Your task to perform on an android device: What's on the menu at Olive Garden? Image 0: 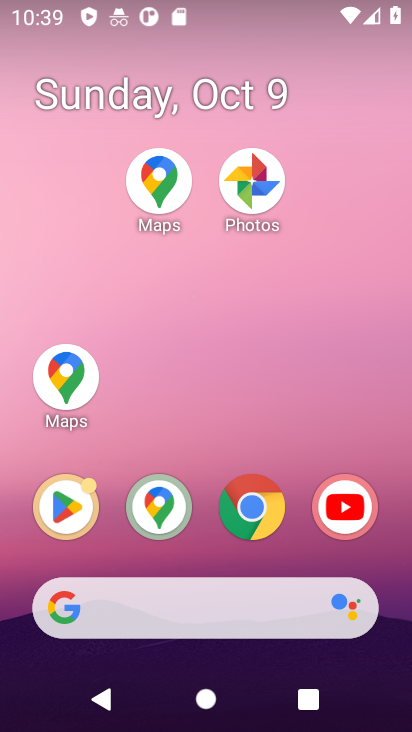
Step 0: drag from (300, 551) to (321, 89)
Your task to perform on an android device: What's on the menu at Olive Garden? Image 1: 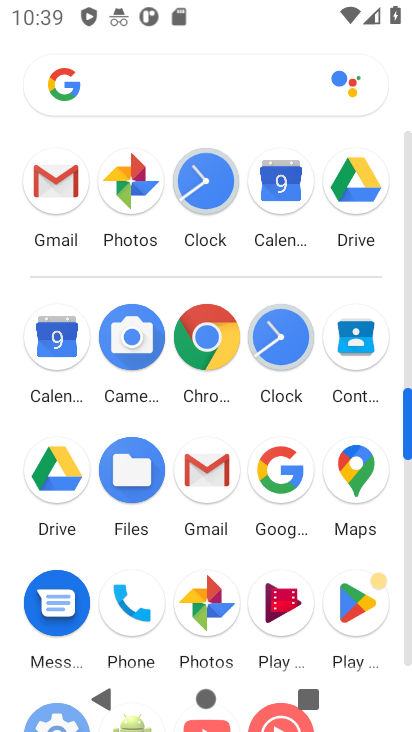
Step 1: click (218, 339)
Your task to perform on an android device: What's on the menu at Olive Garden? Image 2: 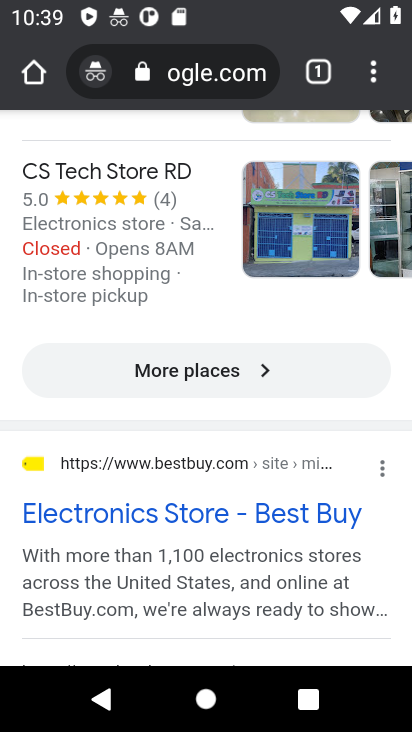
Step 2: click (201, 81)
Your task to perform on an android device: What's on the menu at Olive Garden? Image 3: 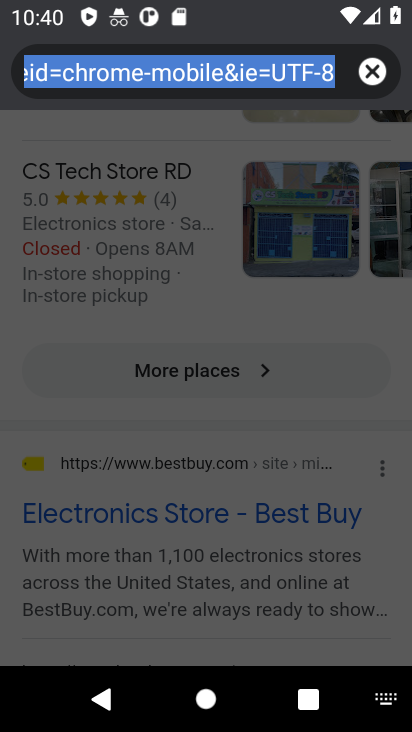
Step 3: type "What's on the menu at O live Garden?"
Your task to perform on an android device: What's on the menu at Olive Garden? Image 4: 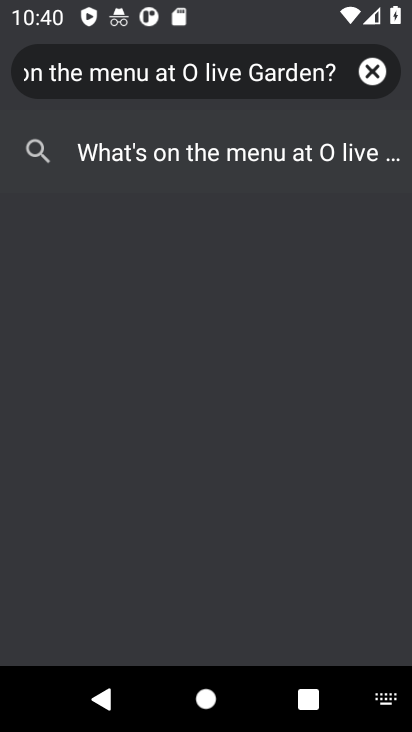
Step 4: press enter
Your task to perform on an android device: What's on the menu at Olive Garden? Image 5: 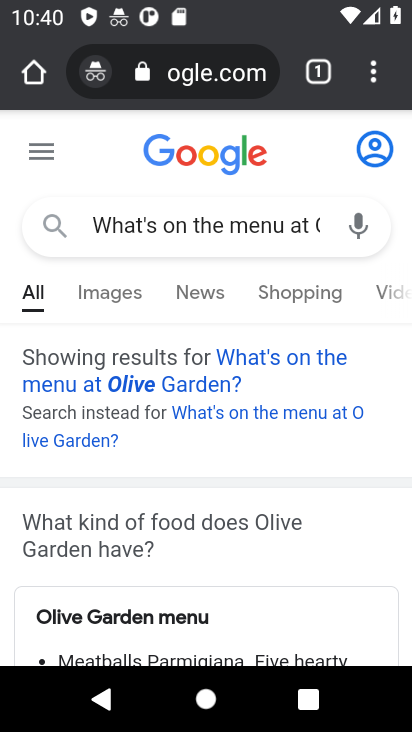
Step 5: drag from (253, 589) to (255, 496)
Your task to perform on an android device: What's on the menu at Olive Garden? Image 6: 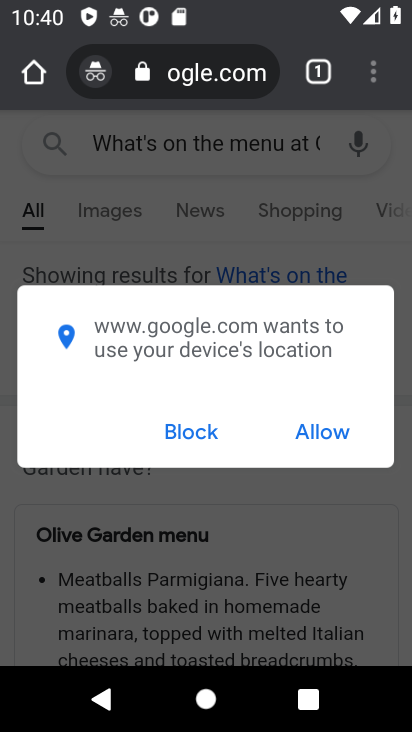
Step 6: click (195, 426)
Your task to perform on an android device: What's on the menu at Olive Garden? Image 7: 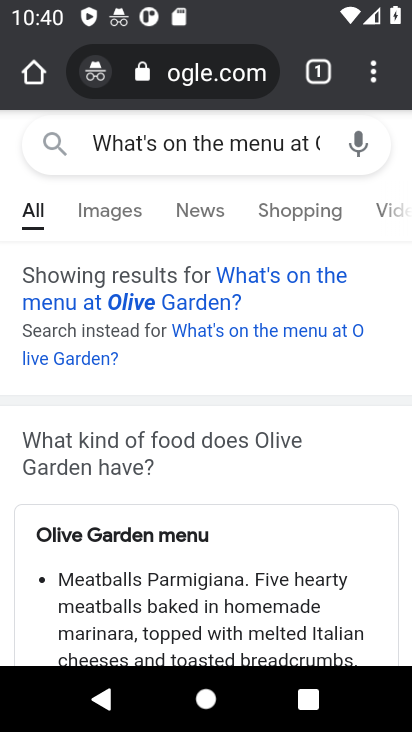
Step 7: click (262, 277)
Your task to perform on an android device: What's on the menu at Olive Garden? Image 8: 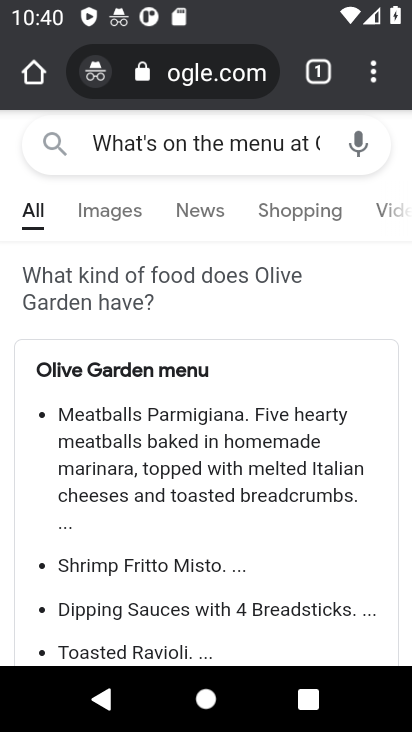
Step 8: drag from (278, 558) to (255, 258)
Your task to perform on an android device: What's on the menu at Olive Garden? Image 9: 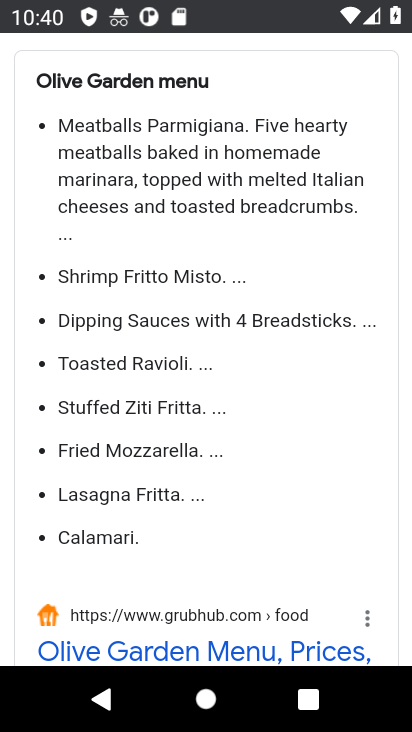
Step 9: drag from (201, 510) to (222, 292)
Your task to perform on an android device: What's on the menu at Olive Garden? Image 10: 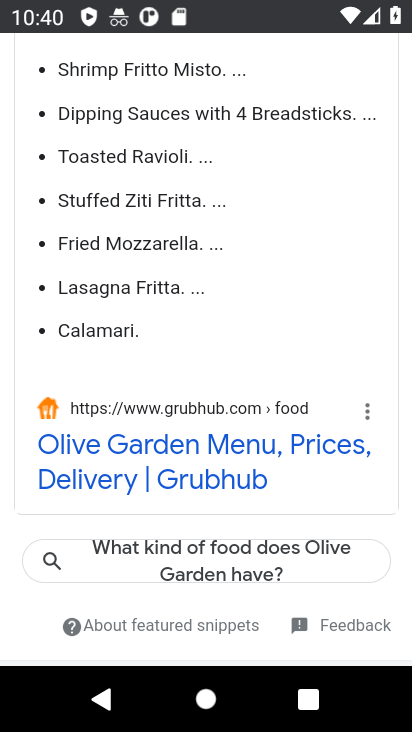
Step 10: click (158, 452)
Your task to perform on an android device: What's on the menu at Olive Garden? Image 11: 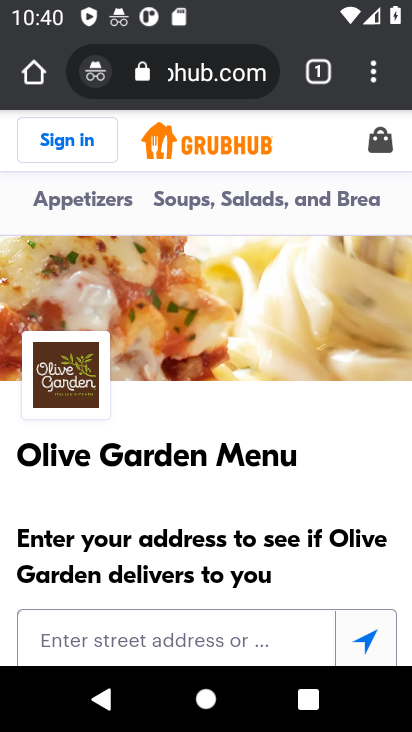
Step 11: task complete